Your task to perform on an android device: turn off picture-in-picture Image 0: 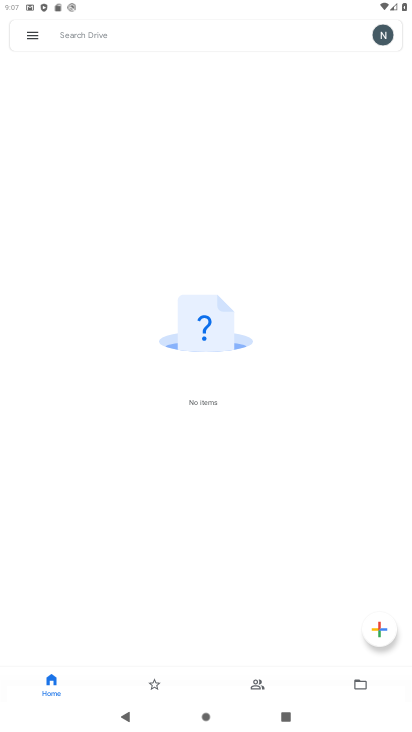
Step 0: press home button
Your task to perform on an android device: turn off picture-in-picture Image 1: 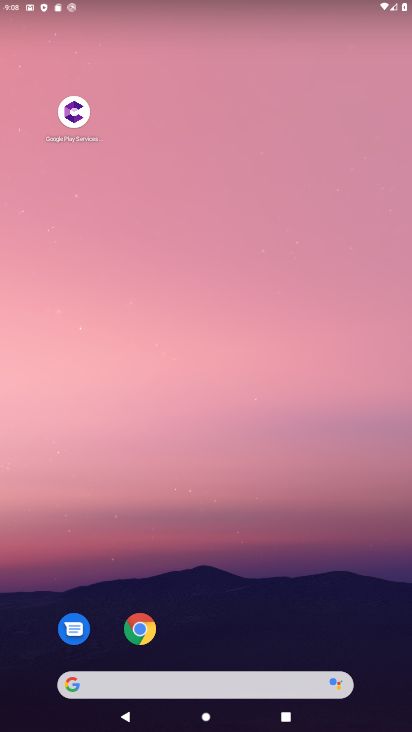
Step 1: drag from (296, 605) to (276, 419)
Your task to perform on an android device: turn off picture-in-picture Image 2: 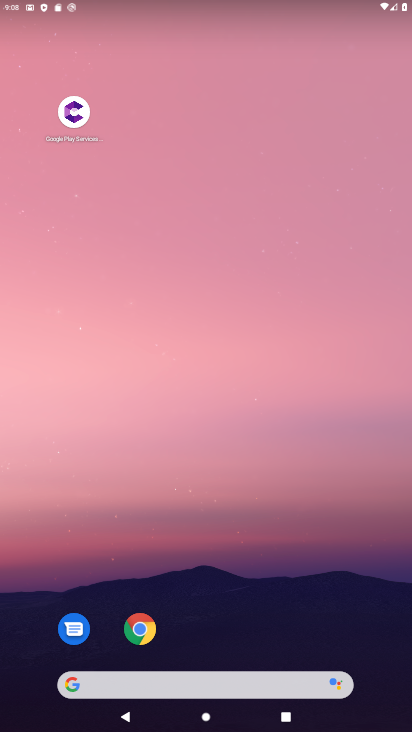
Step 2: click (138, 629)
Your task to perform on an android device: turn off picture-in-picture Image 3: 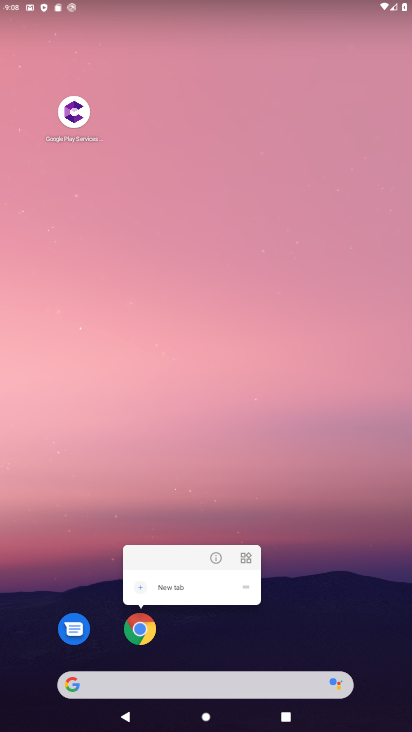
Step 3: click (220, 560)
Your task to perform on an android device: turn off picture-in-picture Image 4: 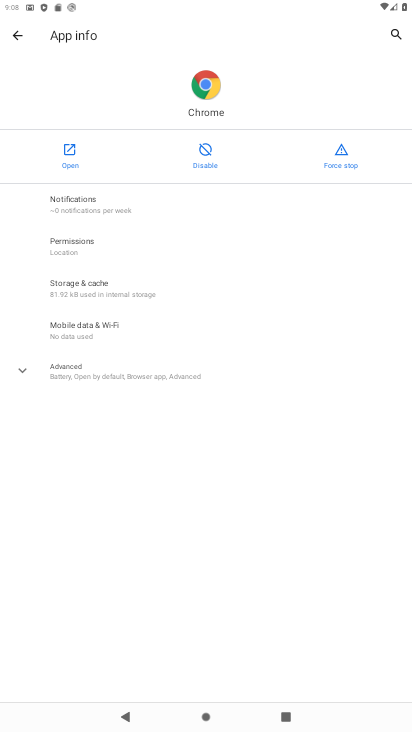
Step 4: click (204, 371)
Your task to perform on an android device: turn off picture-in-picture Image 5: 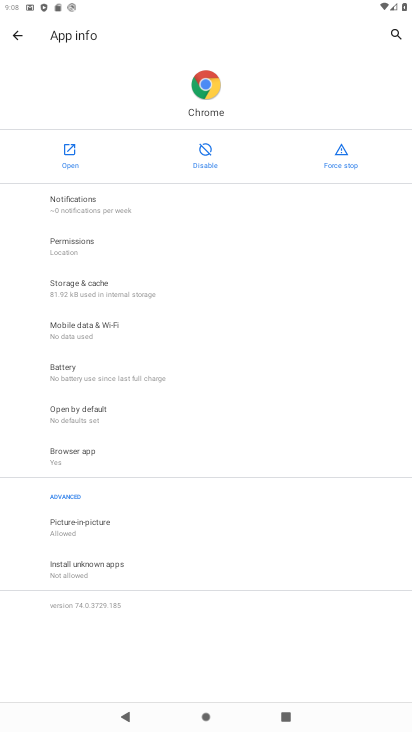
Step 5: drag from (227, 553) to (199, 142)
Your task to perform on an android device: turn off picture-in-picture Image 6: 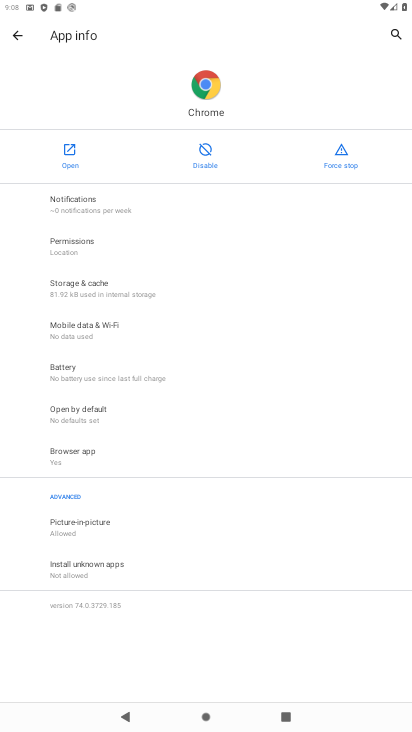
Step 6: drag from (107, 595) to (193, 402)
Your task to perform on an android device: turn off picture-in-picture Image 7: 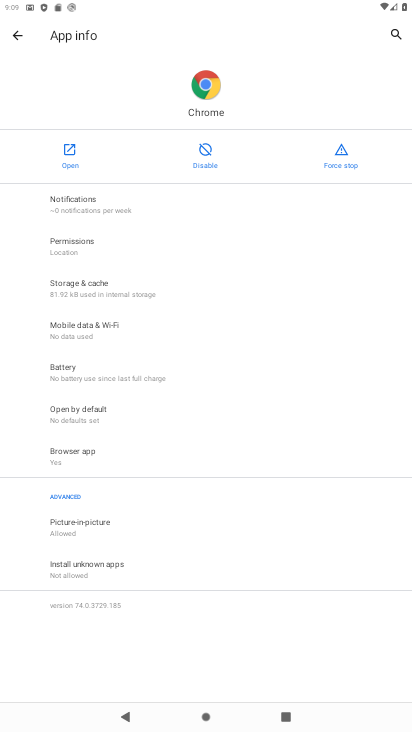
Step 7: click (81, 524)
Your task to perform on an android device: turn off picture-in-picture Image 8: 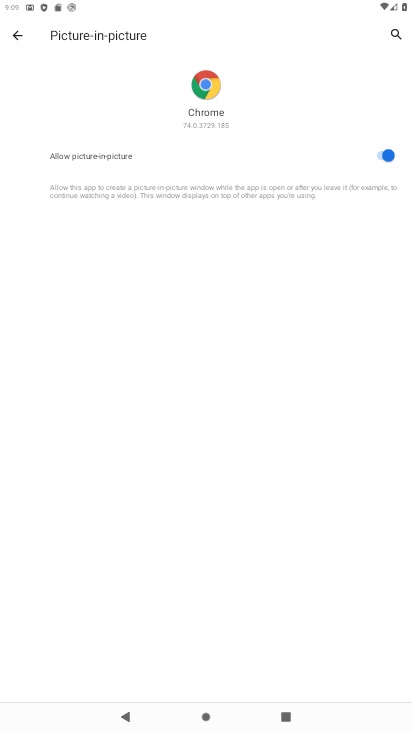
Step 8: click (385, 159)
Your task to perform on an android device: turn off picture-in-picture Image 9: 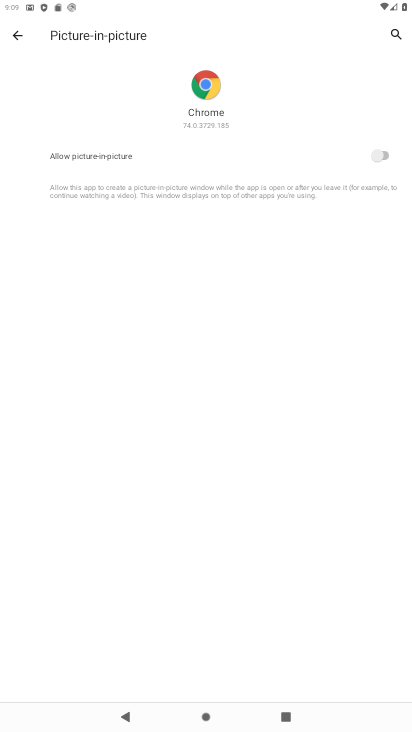
Step 9: task complete